Your task to perform on an android device: Open Youtube and go to "Your channel" Image 0: 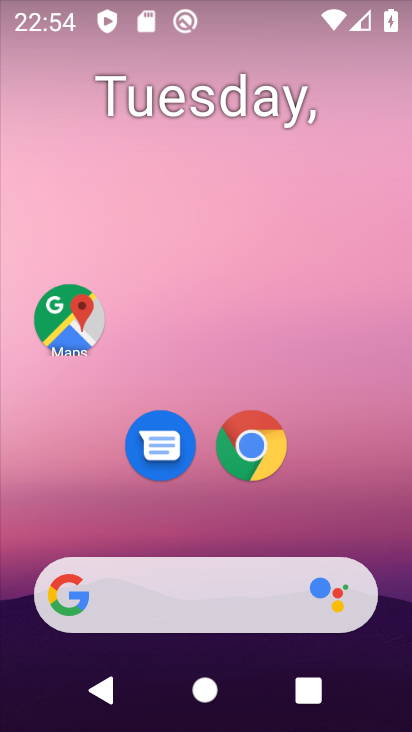
Step 0: drag from (209, 520) to (247, 10)
Your task to perform on an android device: Open Youtube and go to "Your channel" Image 1: 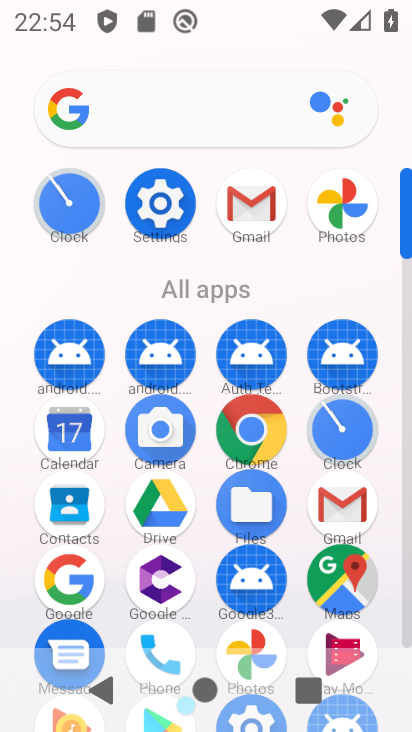
Step 1: drag from (292, 560) to (327, 178)
Your task to perform on an android device: Open Youtube and go to "Your channel" Image 2: 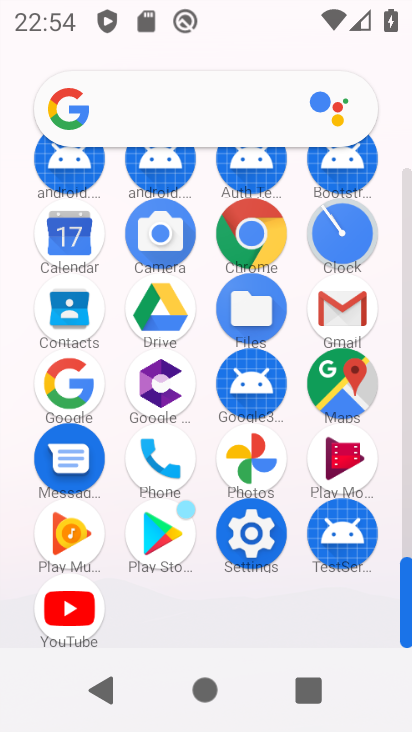
Step 2: click (60, 606)
Your task to perform on an android device: Open Youtube and go to "Your channel" Image 3: 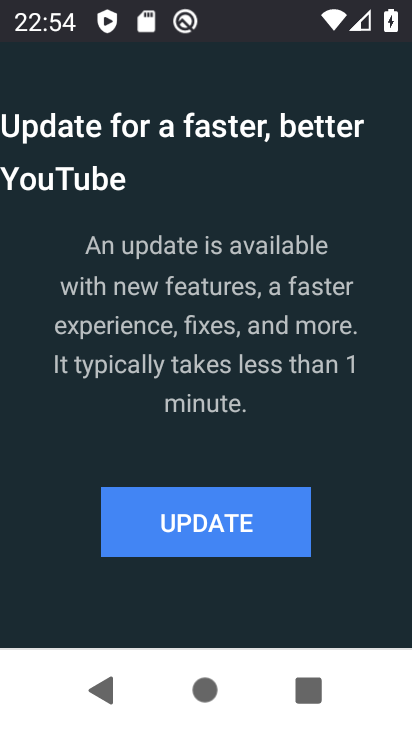
Step 3: click (245, 503)
Your task to perform on an android device: Open Youtube and go to "Your channel" Image 4: 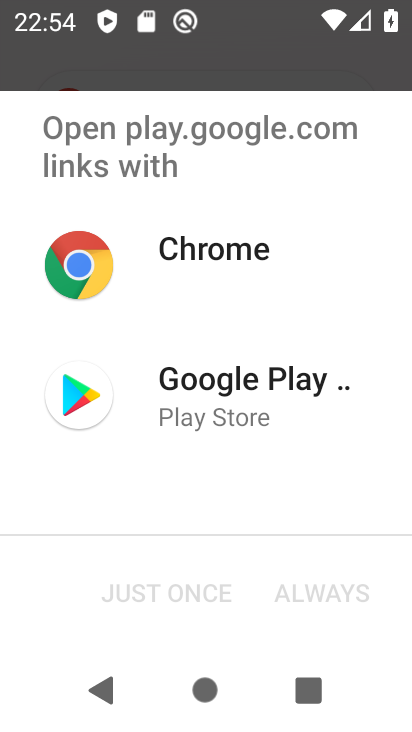
Step 4: click (130, 423)
Your task to perform on an android device: Open Youtube and go to "Your channel" Image 5: 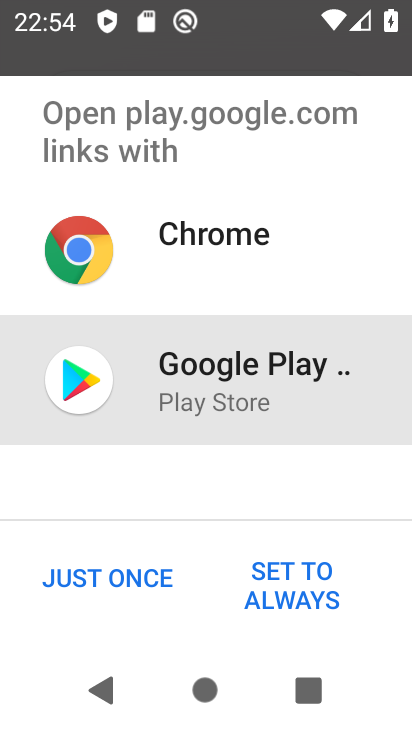
Step 5: click (102, 577)
Your task to perform on an android device: Open Youtube and go to "Your channel" Image 6: 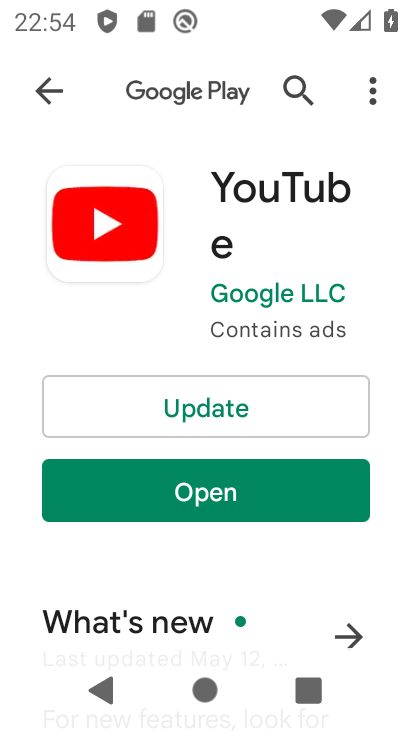
Step 6: click (241, 399)
Your task to perform on an android device: Open Youtube and go to "Your channel" Image 7: 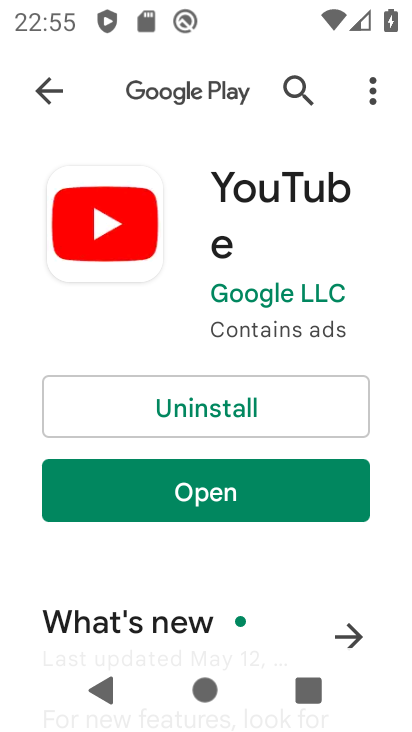
Step 7: click (210, 493)
Your task to perform on an android device: Open Youtube and go to "Your channel" Image 8: 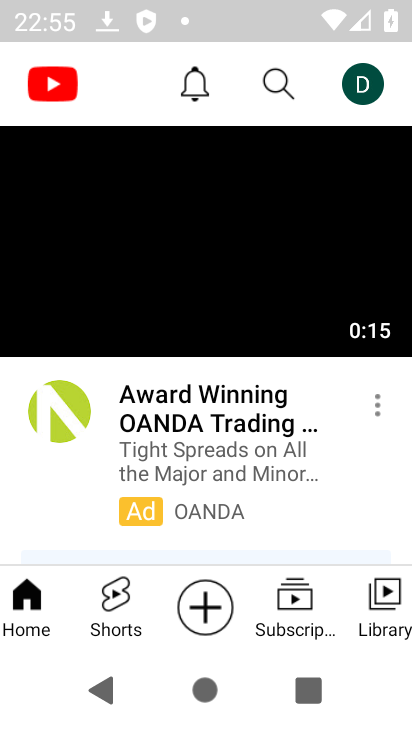
Step 8: click (361, 69)
Your task to perform on an android device: Open Youtube and go to "Your channel" Image 9: 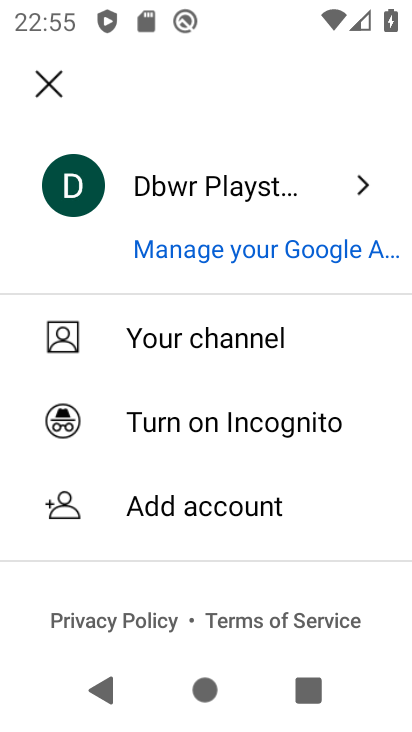
Step 9: click (235, 353)
Your task to perform on an android device: Open Youtube and go to "Your channel" Image 10: 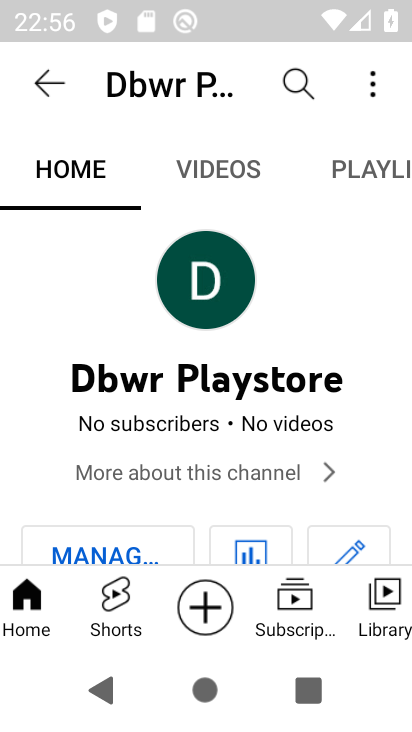
Step 10: task complete